Your task to perform on an android device: turn off smart reply in the gmail app Image 0: 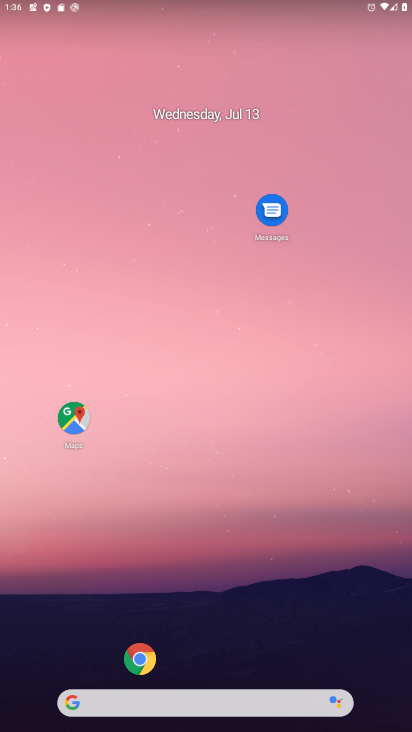
Step 0: drag from (136, 507) to (376, 34)
Your task to perform on an android device: turn off smart reply in the gmail app Image 1: 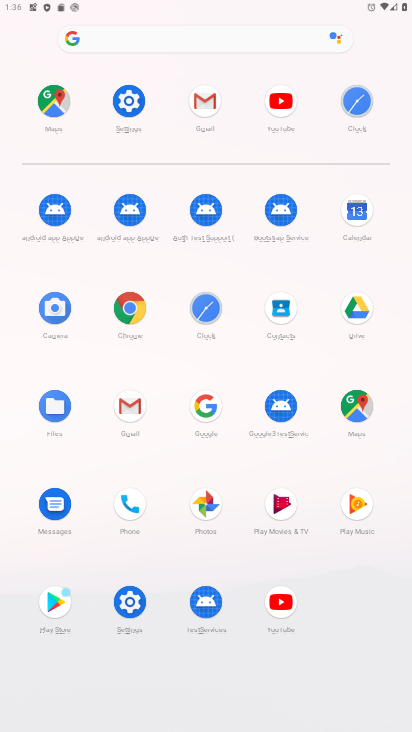
Step 1: click (123, 400)
Your task to perform on an android device: turn off smart reply in the gmail app Image 2: 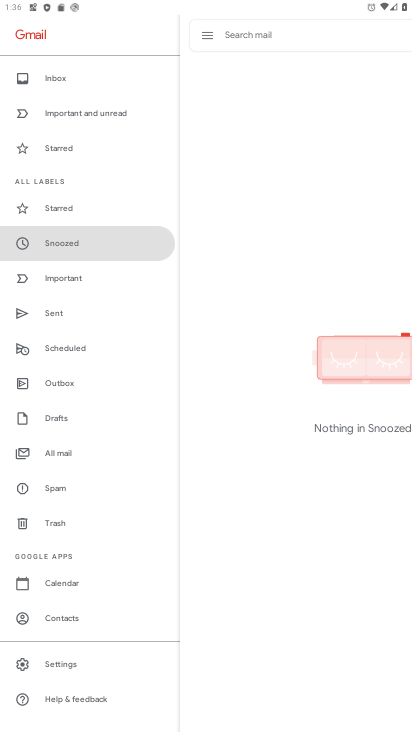
Step 2: task complete